Your task to perform on an android device: What's the weather? Image 0: 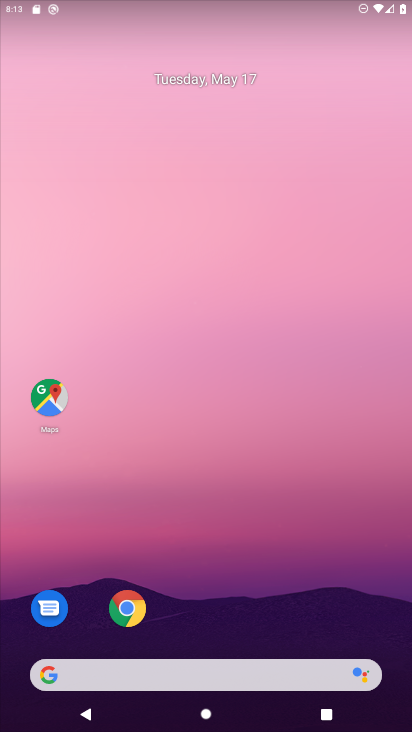
Step 0: click (175, 679)
Your task to perform on an android device: What's the weather? Image 1: 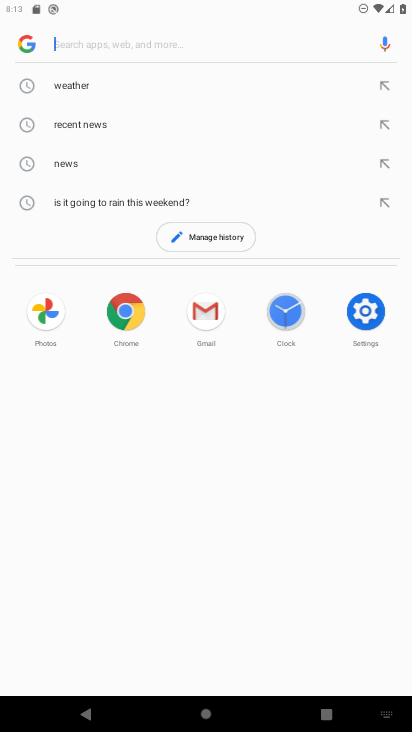
Step 1: click (73, 92)
Your task to perform on an android device: What's the weather? Image 2: 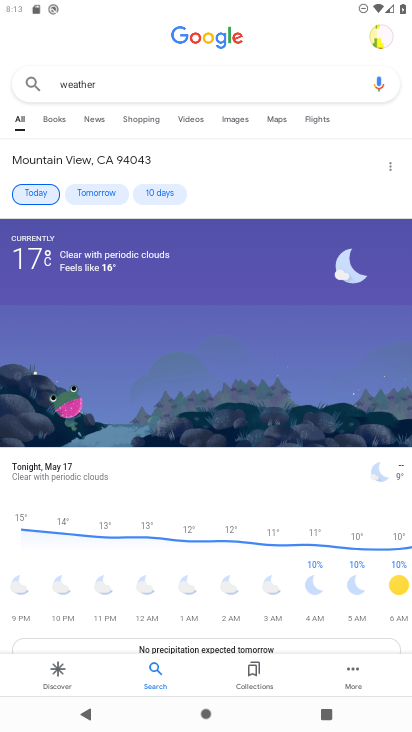
Step 2: task complete